Your task to perform on an android device: turn on javascript in the chrome app Image 0: 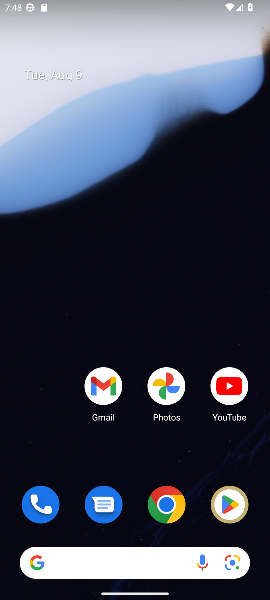
Step 0: click (256, 0)
Your task to perform on an android device: turn on javascript in the chrome app Image 1: 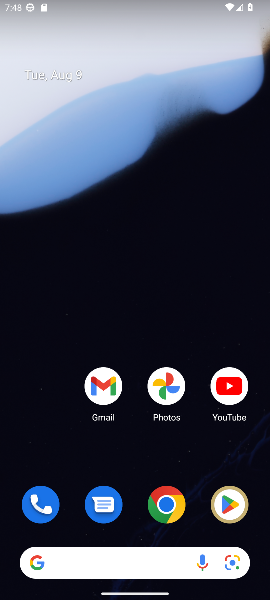
Step 1: click (157, 503)
Your task to perform on an android device: turn on javascript in the chrome app Image 2: 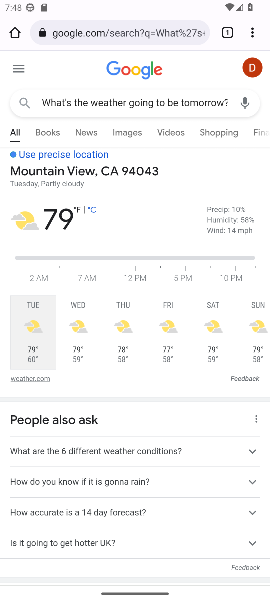
Step 2: drag from (257, 34) to (148, 461)
Your task to perform on an android device: turn on javascript in the chrome app Image 3: 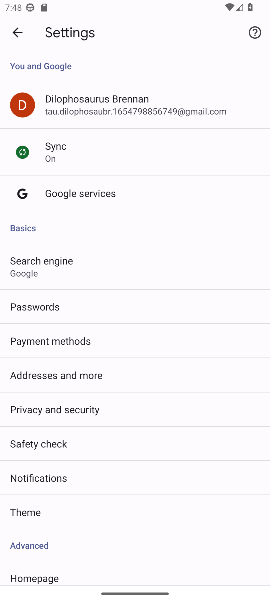
Step 3: drag from (67, 393) to (104, 259)
Your task to perform on an android device: turn on javascript in the chrome app Image 4: 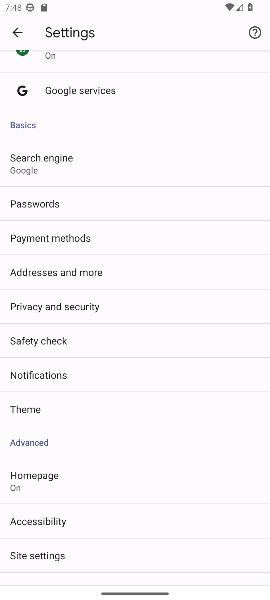
Step 4: click (87, 565)
Your task to perform on an android device: turn on javascript in the chrome app Image 5: 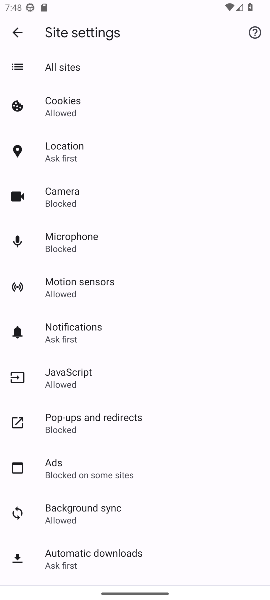
Step 5: click (45, 377)
Your task to perform on an android device: turn on javascript in the chrome app Image 6: 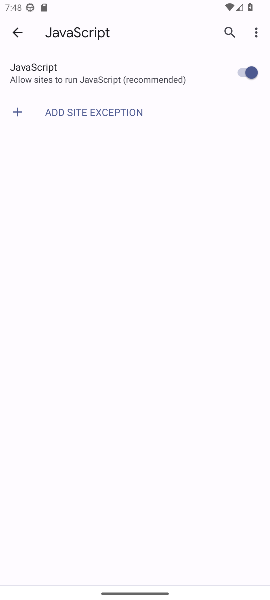
Step 6: task complete